Your task to perform on an android device: remove spam from my inbox in the gmail app Image 0: 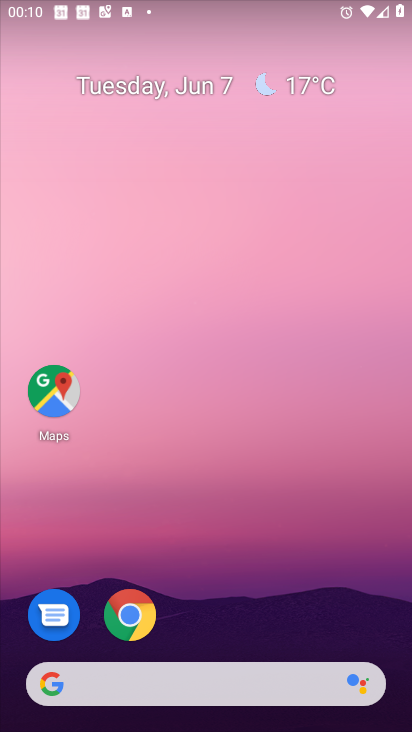
Step 0: drag from (391, 694) to (335, 110)
Your task to perform on an android device: remove spam from my inbox in the gmail app Image 1: 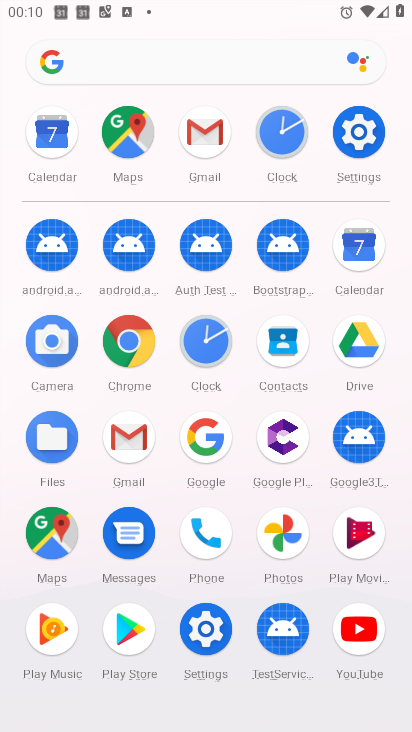
Step 1: click (128, 434)
Your task to perform on an android device: remove spam from my inbox in the gmail app Image 2: 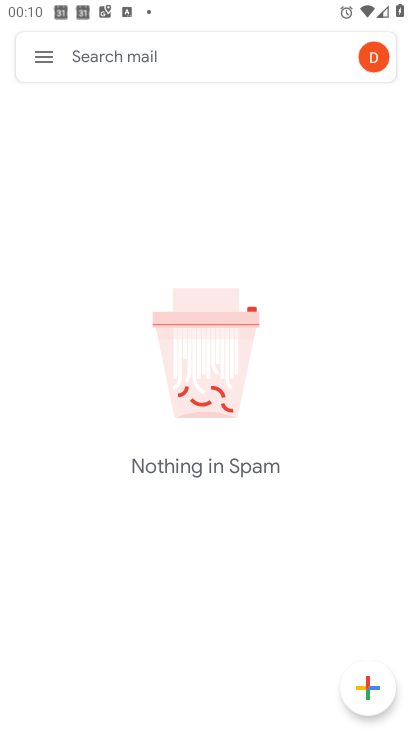
Step 2: click (53, 54)
Your task to perform on an android device: remove spam from my inbox in the gmail app Image 3: 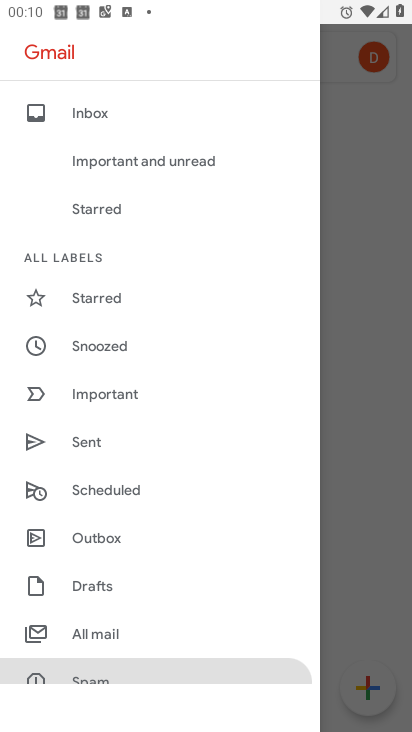
Step 3: click (82, 668)
Your task to perform on an android device: remove spam from my inbox in the gmail app Image 4: 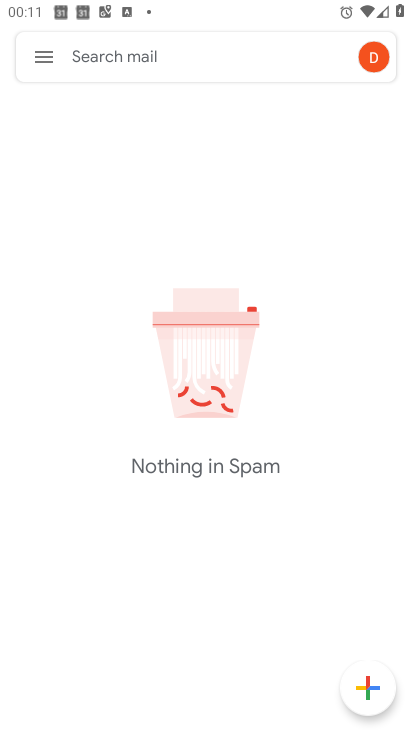
Step 4: task complete